Your task to perform on an android device: toggle wifi Image 0: 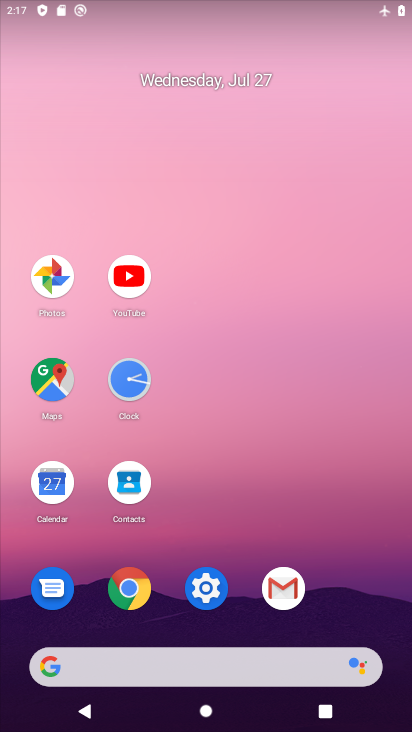
Step 0: click (200, 592)
Your task to perform on an android device: toggle wifi Image 1: 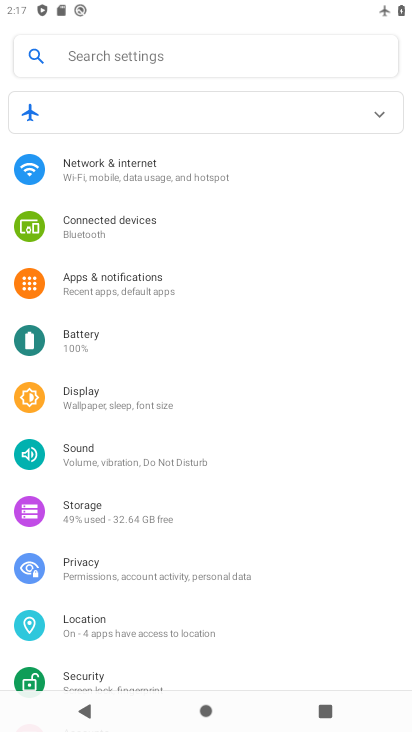
Step 1: click (99, 166)
Your task to perform on an android device: toggle wifi Image 2: 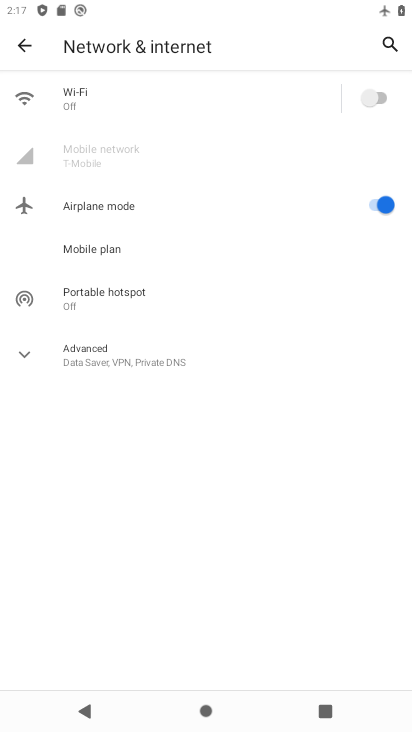
Step 2: click (364, 93)
Your task to perform on an android device: toggle wifi Image 3: 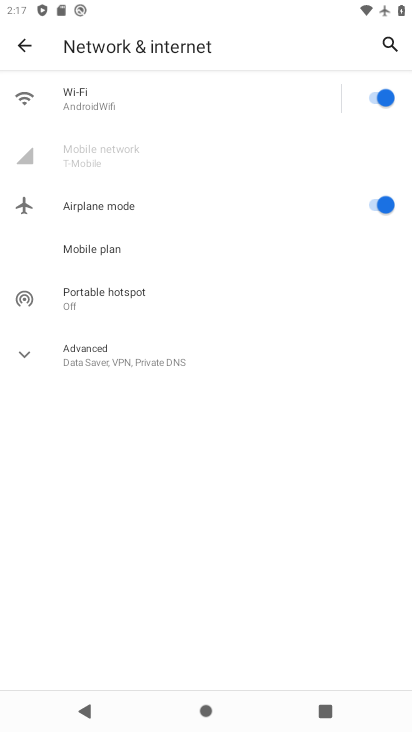
Step 3: task complete